Your task to perform on an android device: Go to ESPN.com Image 0: 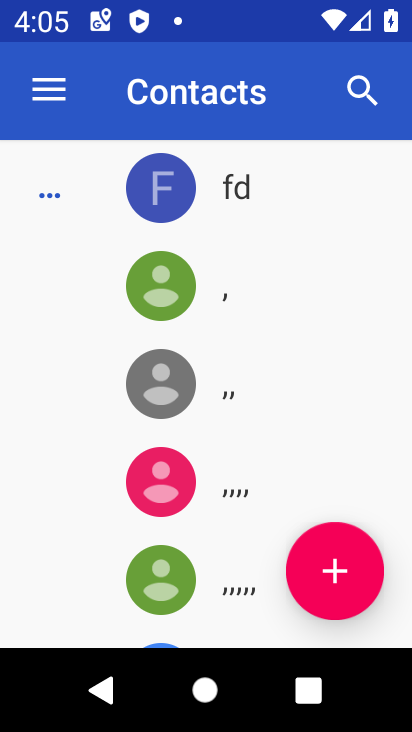
Step 0: press home button
Your task to perform on an android device: Go to ESPN.com Image 1: 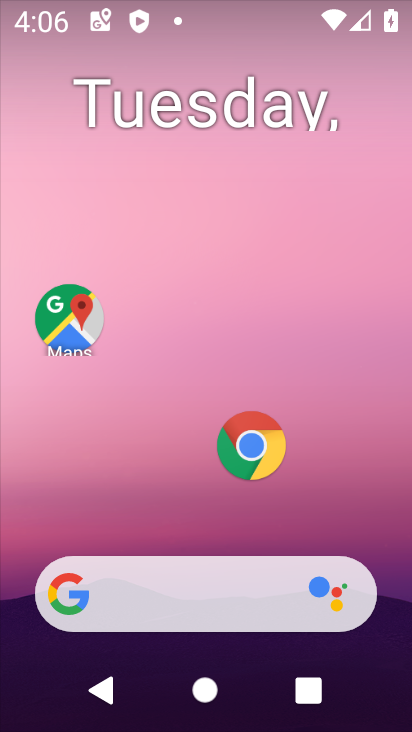
Step 1: click (249, 457)
Your task to perform on an android device: Go to ESPN.com Image 2: 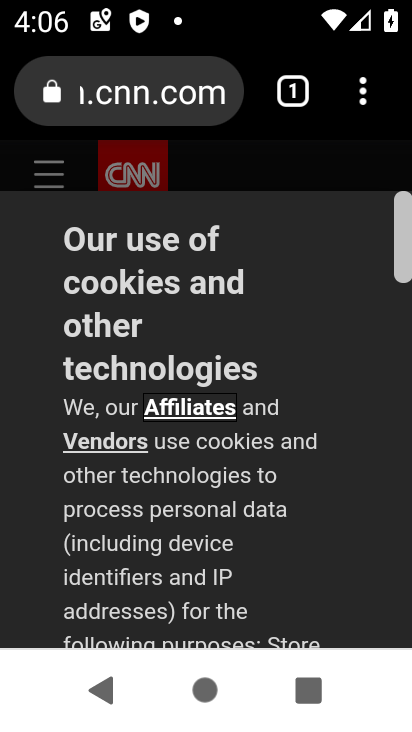
Step 2: click (151, 88)
Your task to perform on an android device: Go to ESPN.com Image 3: 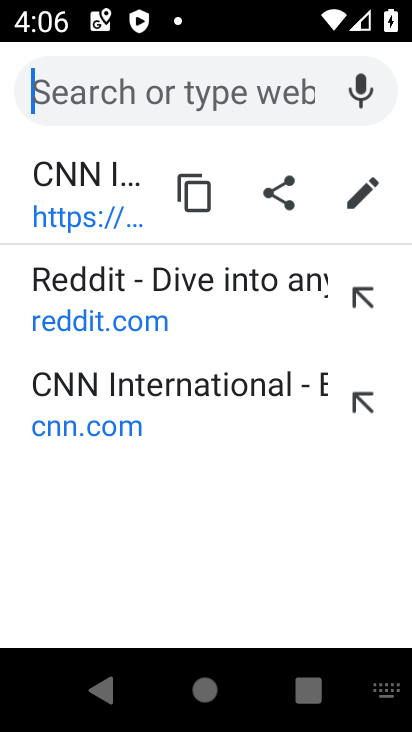
Step 3: type "ESPN.com"
Your task to perform on an android device: Go to ESPN.com Image 4: 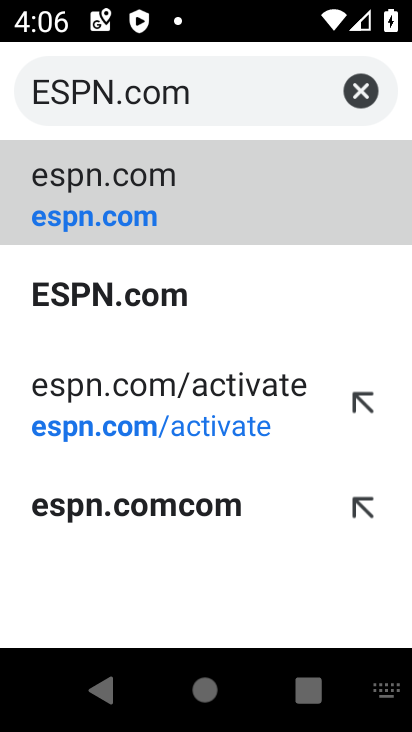
Step 4: click (119, 294)
Your task to perform on an android device: Go to ESPN.com Image 5: 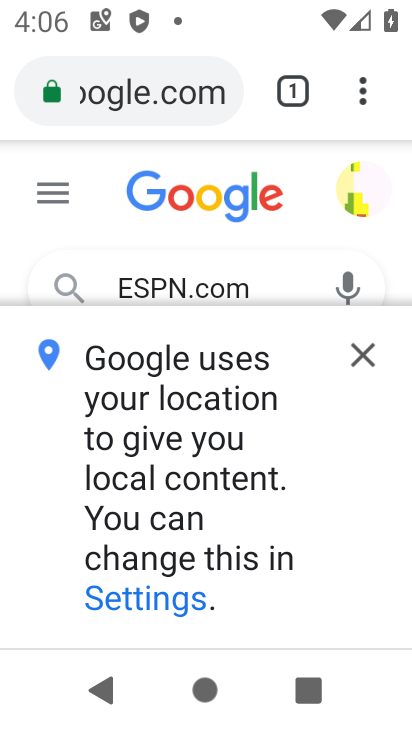
Step 5: click (356, 357)
Your task to perform on an android device: Go to ESPN.com Image 6: 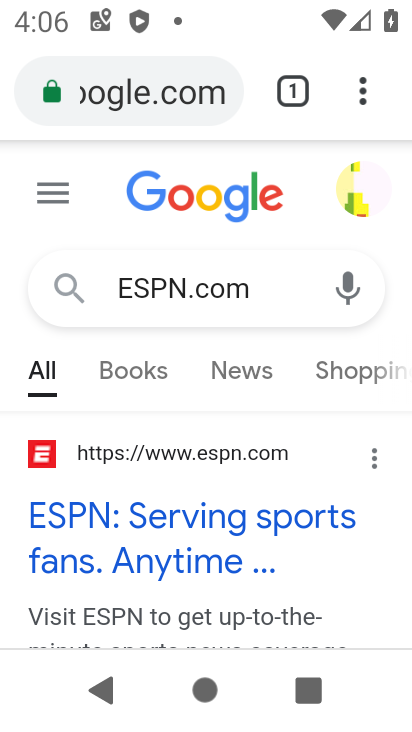
Step 6: task complete